Your task to perform on an android device: move a message to another label in the gmail app Image 0: 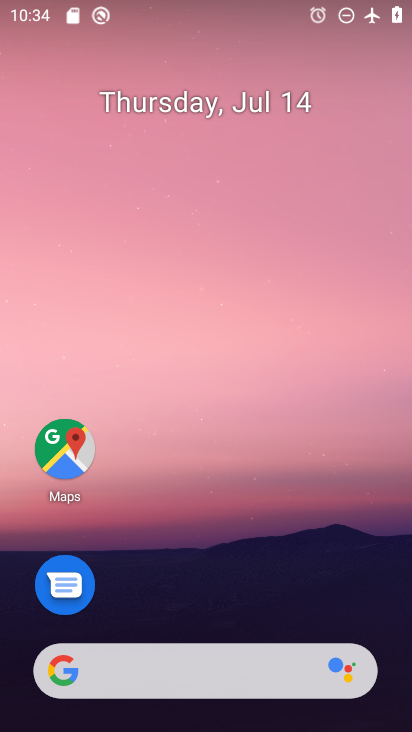
Step 0: drag from (208, 639) to (144, 257)
Your task to perform on an android device: move a message to another label in the gmail app Image 1: 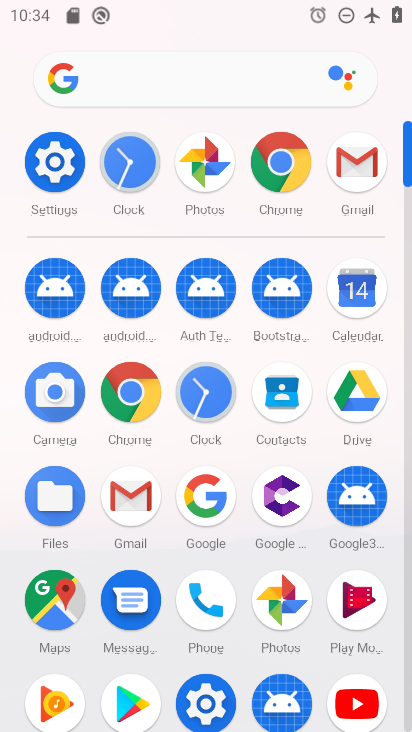
Step 1: click (135, 492)
Your task to perform on an android device: move a message to another label in the gmail app Image 2: 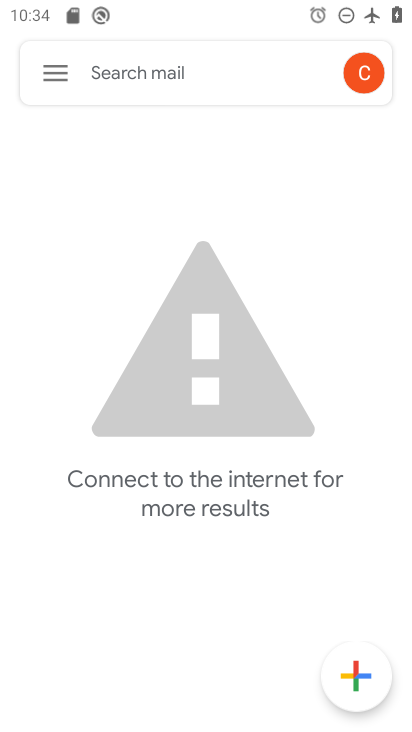
Step 2: task complete